Your task to perform on an android device: What's the weather today? Image 0: 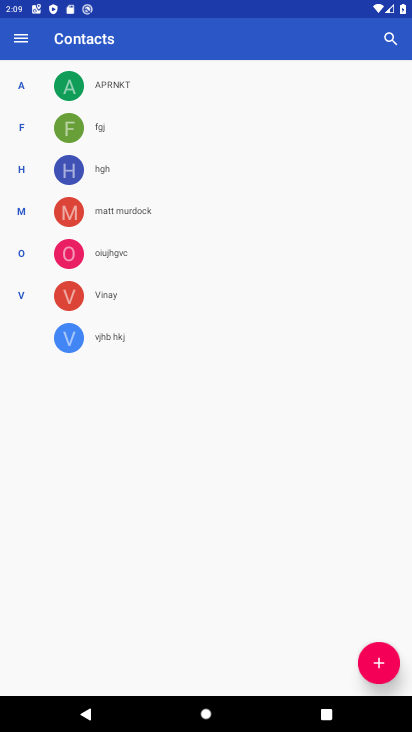
Step 0: press home button
Your task to perform on an android device: What's the weather today? Image 1: 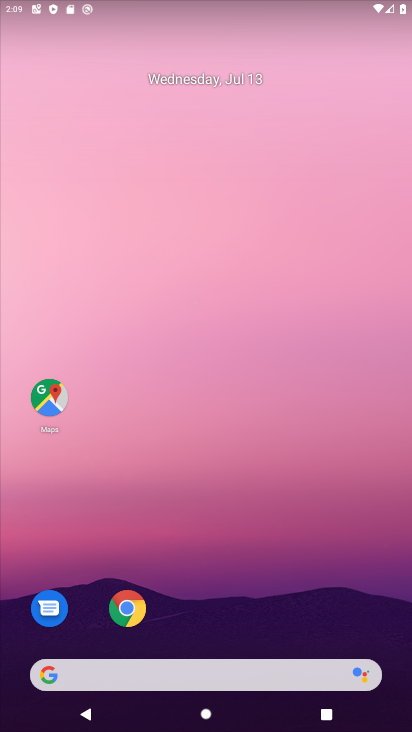
Step 1: click (190, 683)
Your task to perform on an android device: What's the weather today? Image 2: 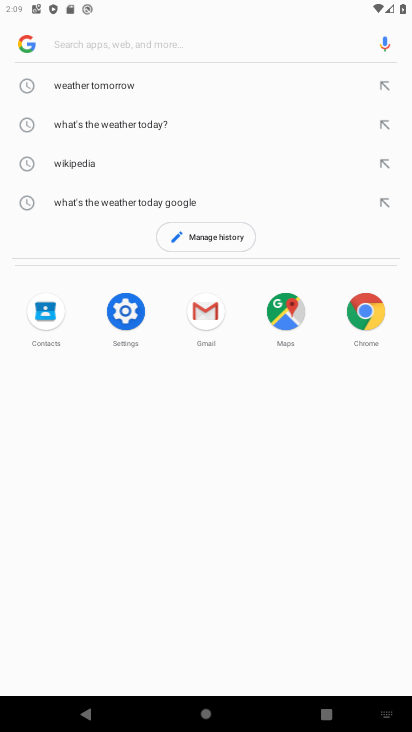
Step 2: type "wheather"
Your task to perform on an android device: What's the weather today? Image 3: 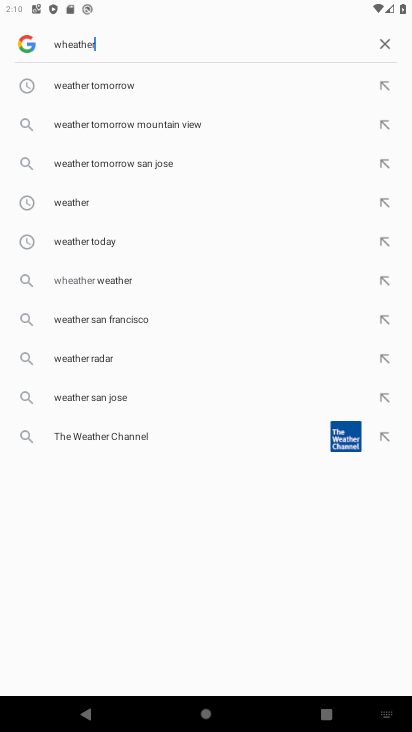
Step 3: click (79, 199)
Your task to perform on an android device: What's the weather today? Image 4: 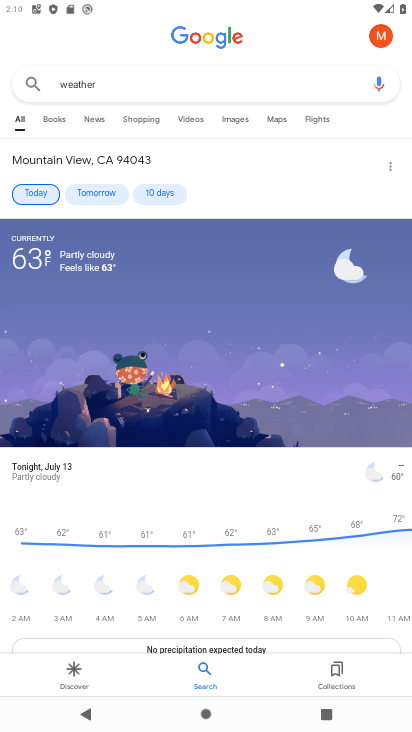
Step 4: task complete